Your task to perform on an android device: toggle wifi Image 0: 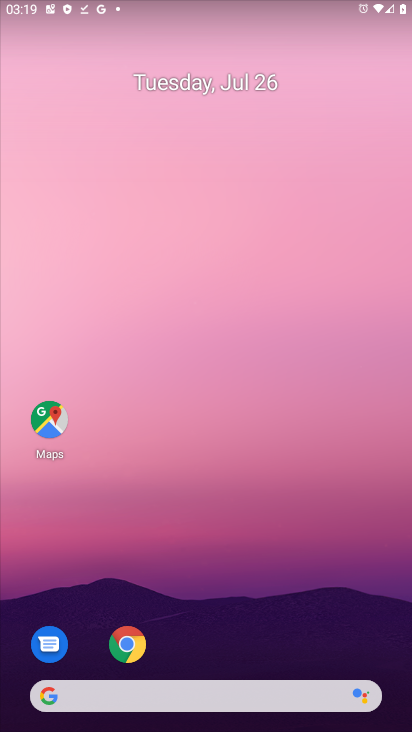
Step 0: drag from (210, 665) to (121, 44)
Your task to perform on an android device: toggle wifi Image 1: 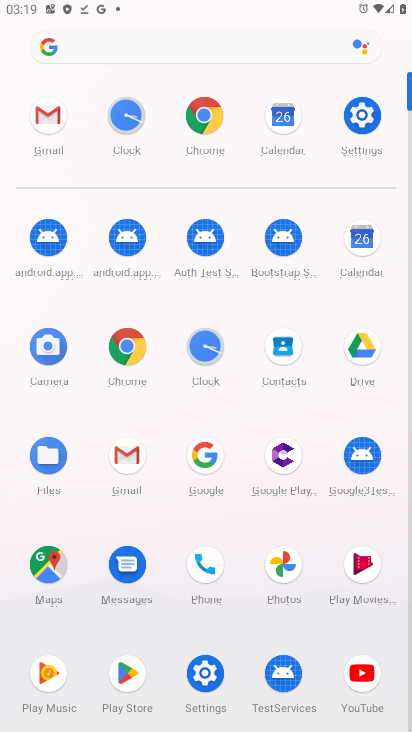
Step 1: click (208, 671)
Your task to perform on an android device: toggle wifi Image 2: 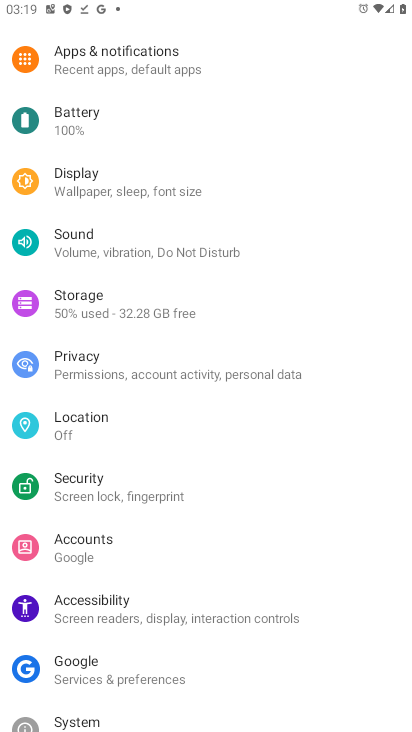
Step 2: drag from (88, 87) to (85, 464)
Your task to perform on an android device: toggle wifi Image 3: 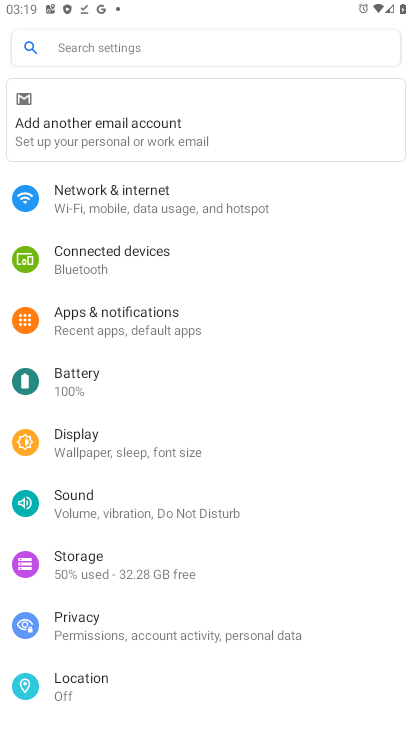
Step 3: click (85, 182)
Your task to perform on an android device: toggle wifi Image 4: 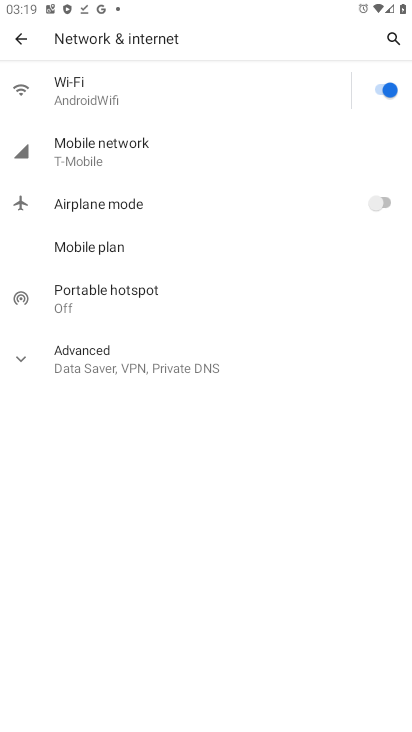
Step 4: click (137, 81)
Your task to perform on an android device: toggle wifi Image 5: 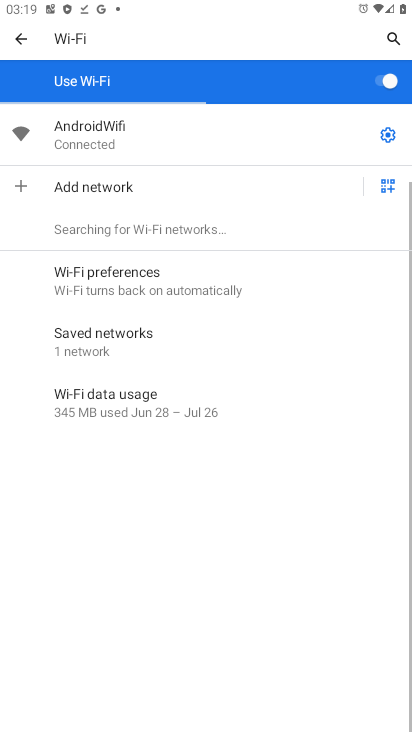
Step 5: click (379, 86)
Your task to perform on an android device: toggle wifi Image 6: 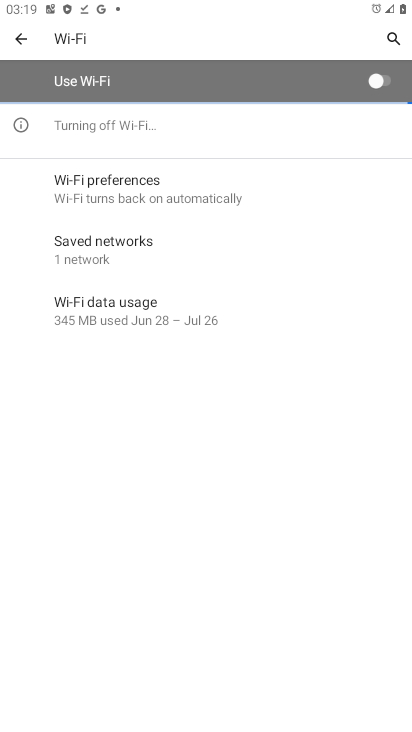
Step 6: task complete